Your task to perform on an android device: open sync settings in chrome Image 0: 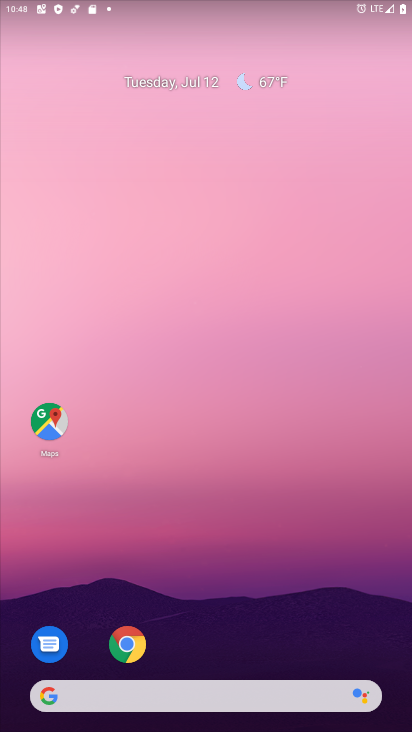
Step 0: drag from (172, 662) to (332, 71)
Your task to perform on an android device: open sync settings in chrome Image 1: 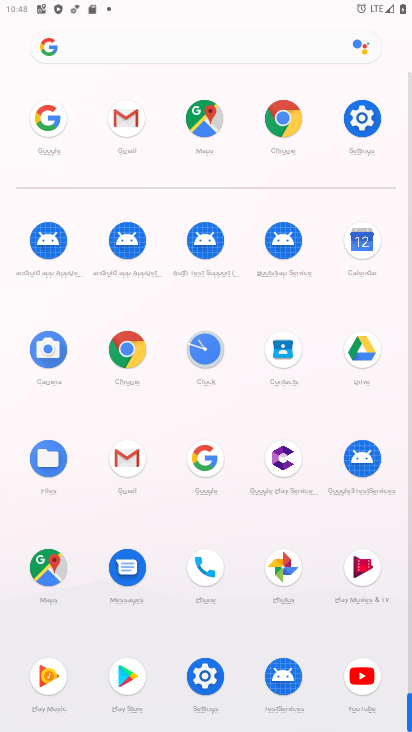
Step 1: click (118, 347)
Your task to perform on an android device: open sync settings in chrome Image 2: 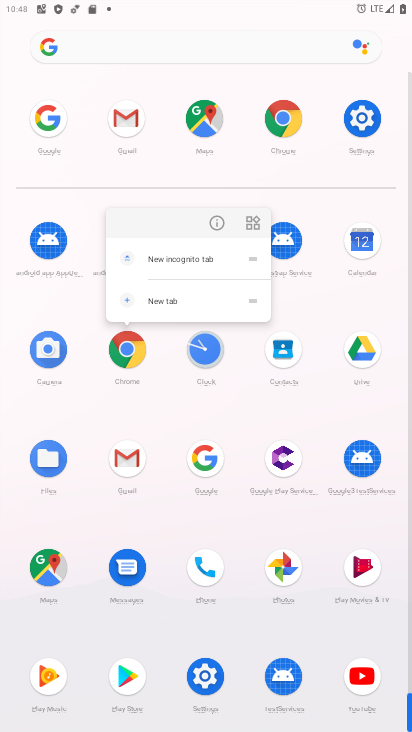
Step 2: click (221, 215)
Your task to perform on an android device: open sync settings in chrome Image 3: 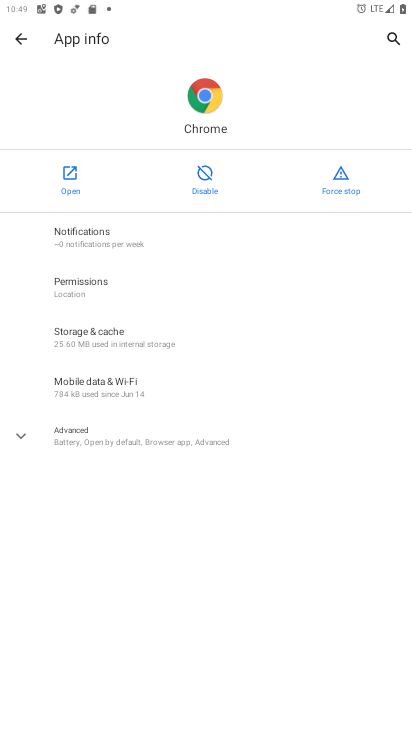
Step 3: click (66, 186)
Your task to perform on an android device: open sync settings in chrome Image 4: 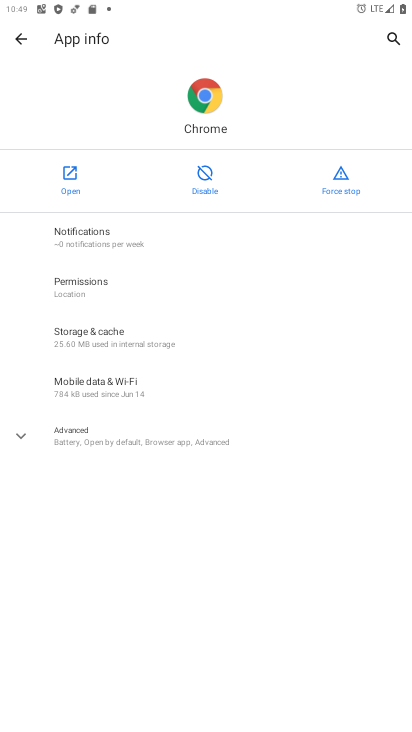
Step 4: click (66, 186)
Your task to perform on an android device: open sync settings in chrome Image 5: 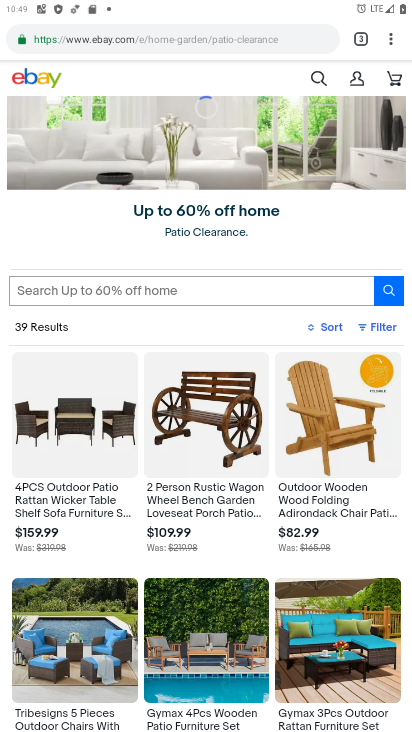
Step 5: drag from (181, 516) to (254, 202)
Your task to perform on an android device: open sync settings in chrome Image 6: 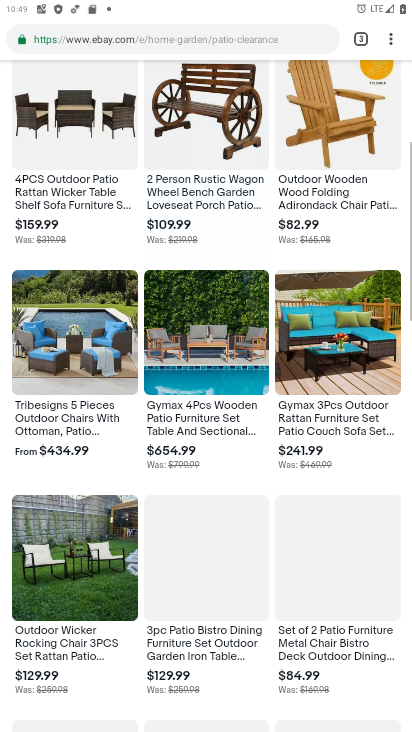
Step 6: drag from (259, 166) to (304, 713)
Your task to perform on an android device: open sync settings in chrome Image 7: 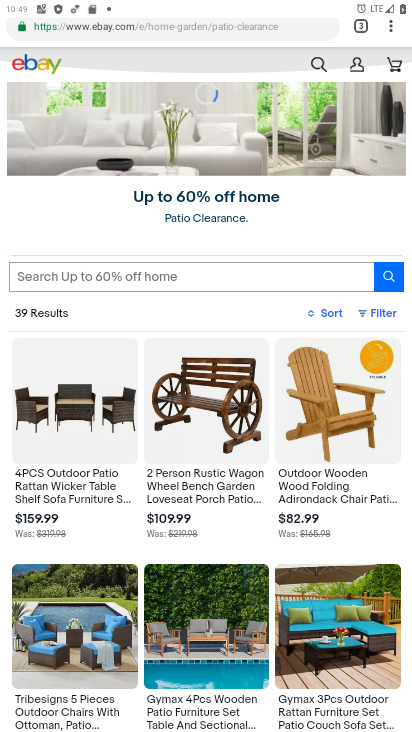
Step 7: drag from (315, 193) to (321, 615)
Your task to perform on an android device: open sync settings in chrome Image 8: 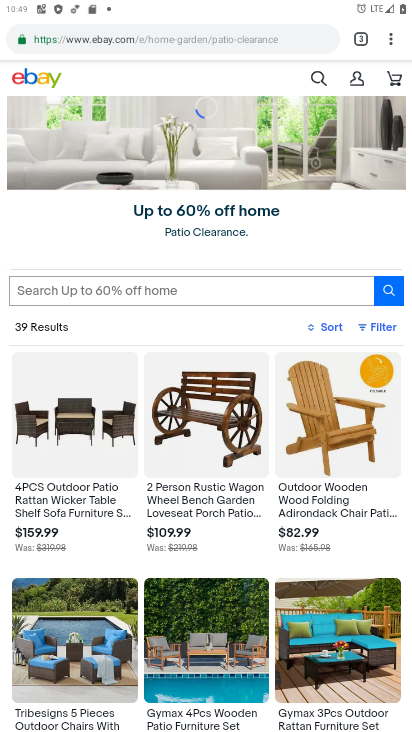
Step 8: click (393, 40)
Your task to perform on an android device: open sync settings in chrome Image 9: 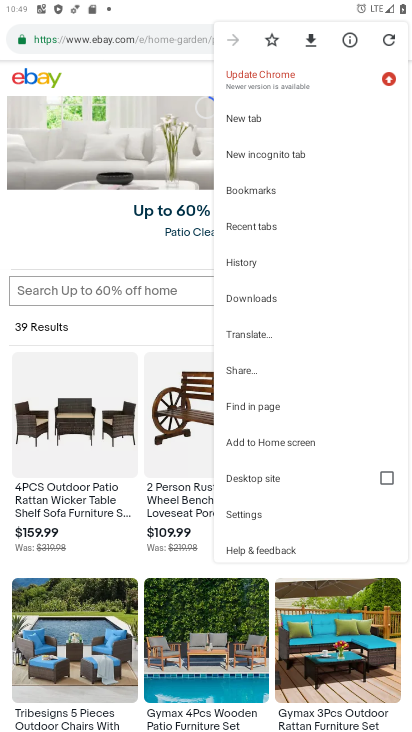
Step 9: click (243, 518)
Your task to perform on an android device: open sync settings in chrome Image 10: 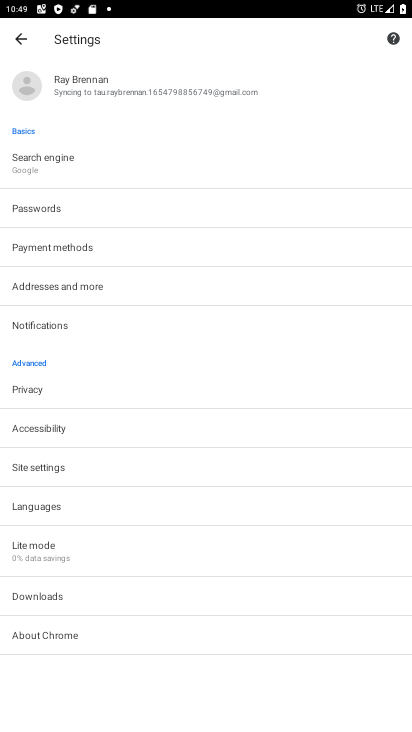
Step 10: drag from (186, 610) to (213, 311)
Your task to perform on an android device: open sync settings in chrome Image 11: 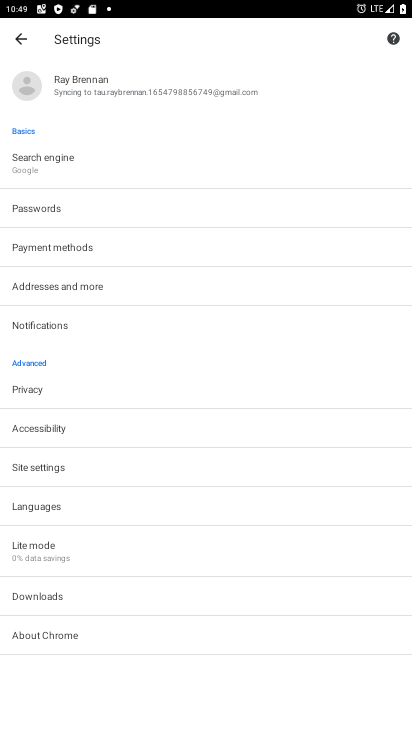
Step 11: click (78, 467)
Your task to perform on an android device: open sync settings in chrome Image 12: 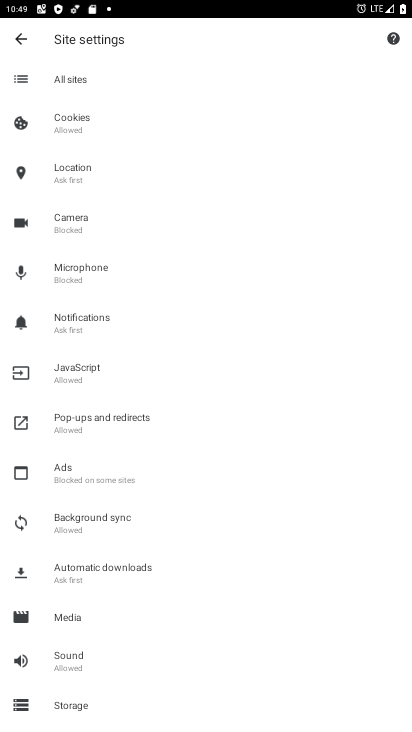
Step 12: click (116, 521)
Your task to perform on an android device: open sync settings in chrome Image 13: 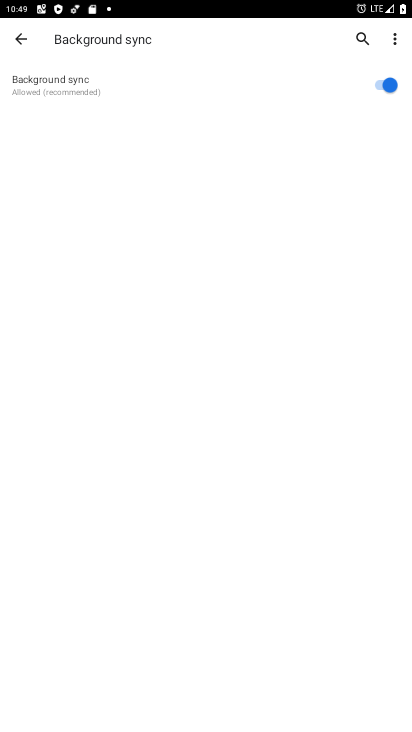
Step 13: drag from (175, 552) to (242, 80)
Your task to perform on an android device: open sync settings in chrome Image 14: 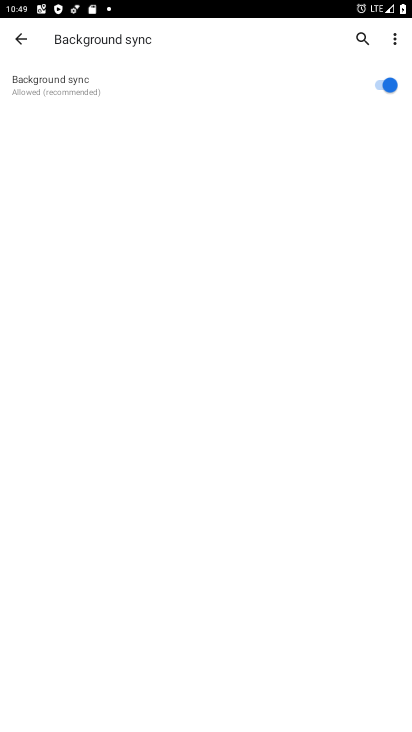
Step 14: click (380, 85)
Your task to perform on an android device: open sync settings in chrome Image 15: 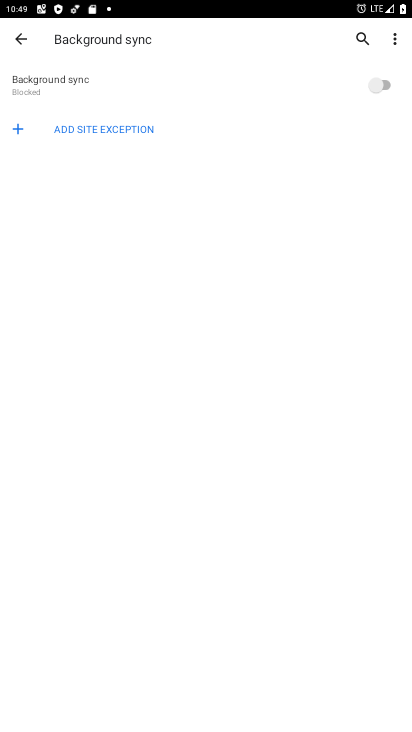
Step 15: task complete